Your task to perform on an android device: toggle location history Image 0: 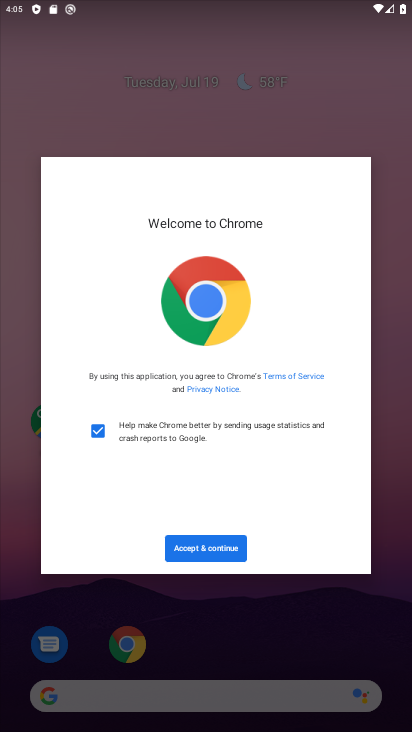
Step 0: press home button
Your task to perform on an android device: toggle location history Image 1: 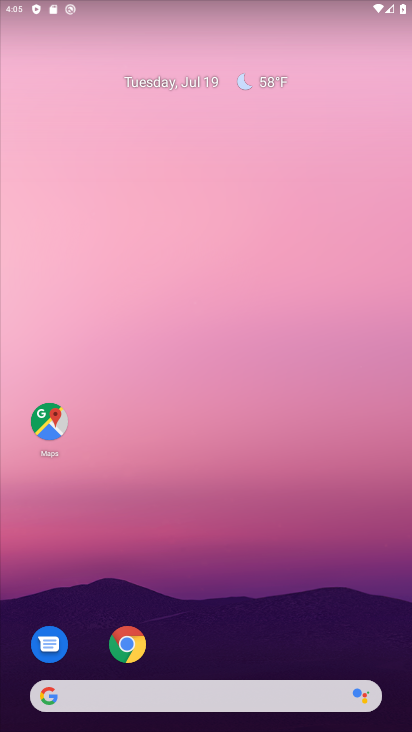
Step 1: drag from (275, 641) to (206, 110)
Your task to perform on an android device: toggle location history Image 2: 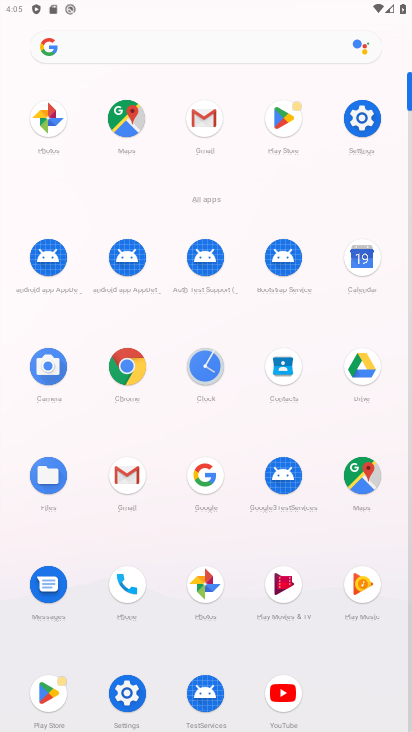
Step 2: click (365, 106)
Your task to perform on an android device: toggle location history Image 3: 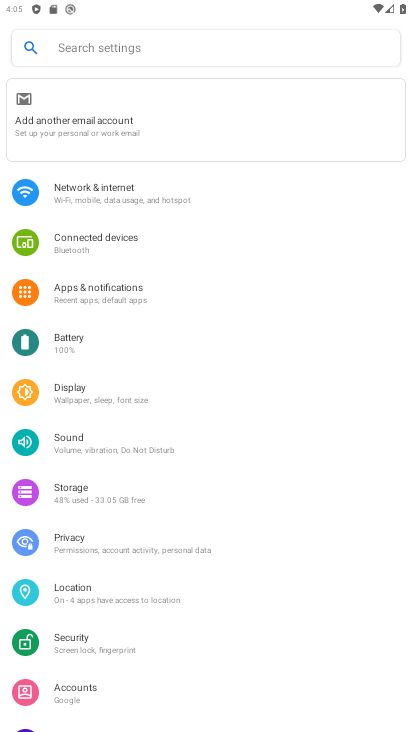
Step 3: click (101, 595)
Your task to perform on an android device: toggle location history Image 4: 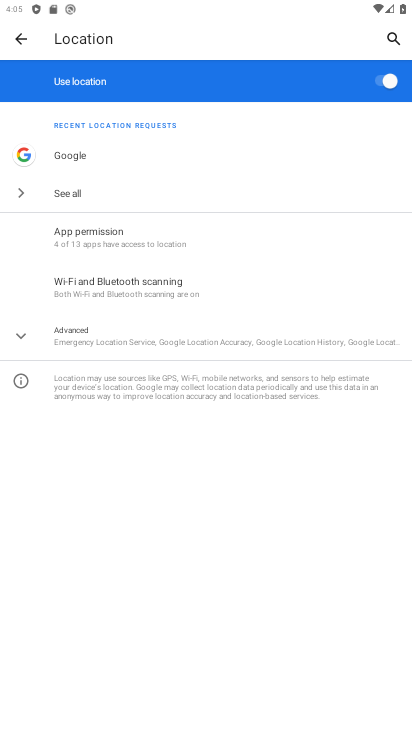
Step 4: click (94, 337)
Your task to perform on an android device: toggle location history Image 5: 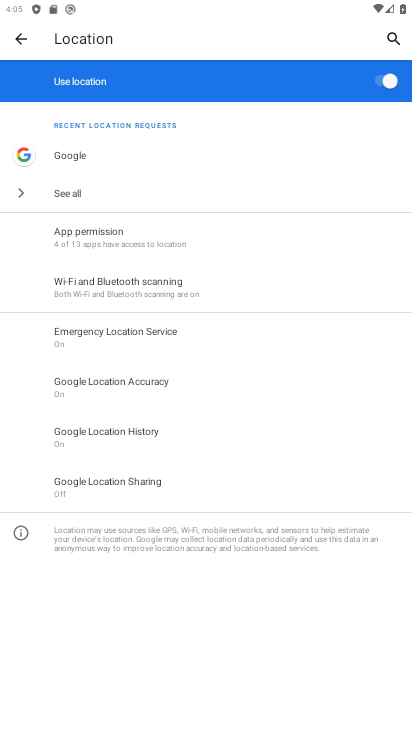
Step 5: click (137, 435)
Your task to perform on an android device: toggle location history Image 6: 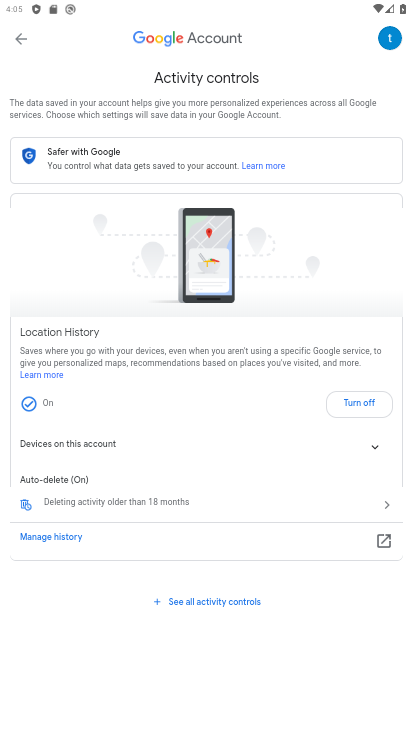
Step 6: click (352, 405)
Your task to perform on an android device: toggle location history Image 7: 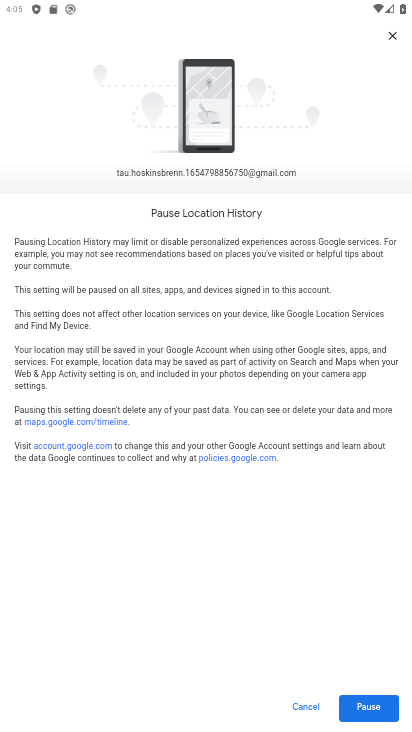
Step 7: click (381, 712)
Your task to perform on an android device: toggle location history Image 8: 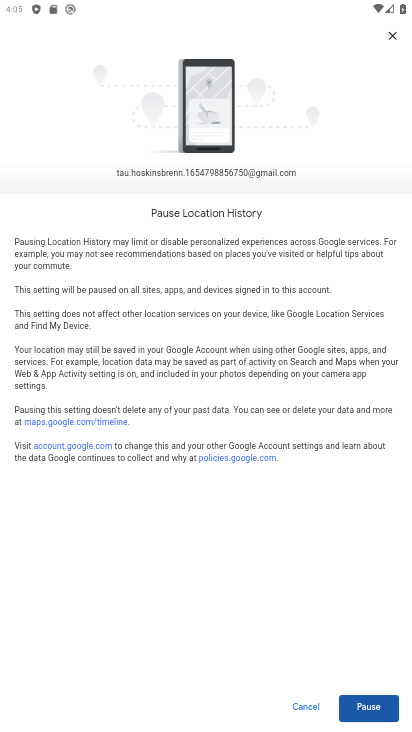
Step 8: click (381, 705)
Your task to perform on an android device: toggle location history Image 9: 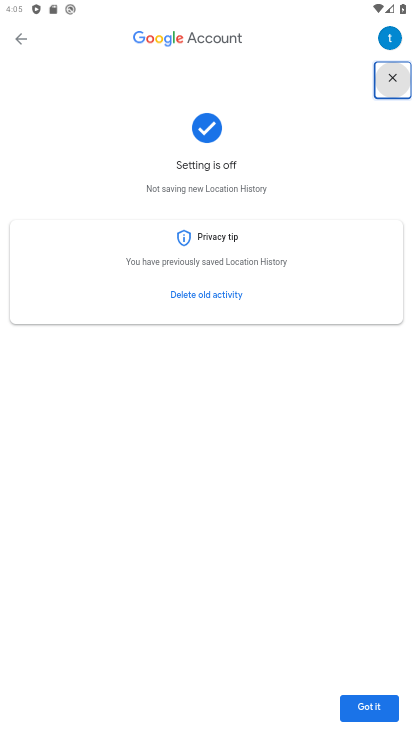
Step 9: task complete